Your task to perform on an android device: open app "Cash App" (install if not already installed) and go to login screen Image 0: 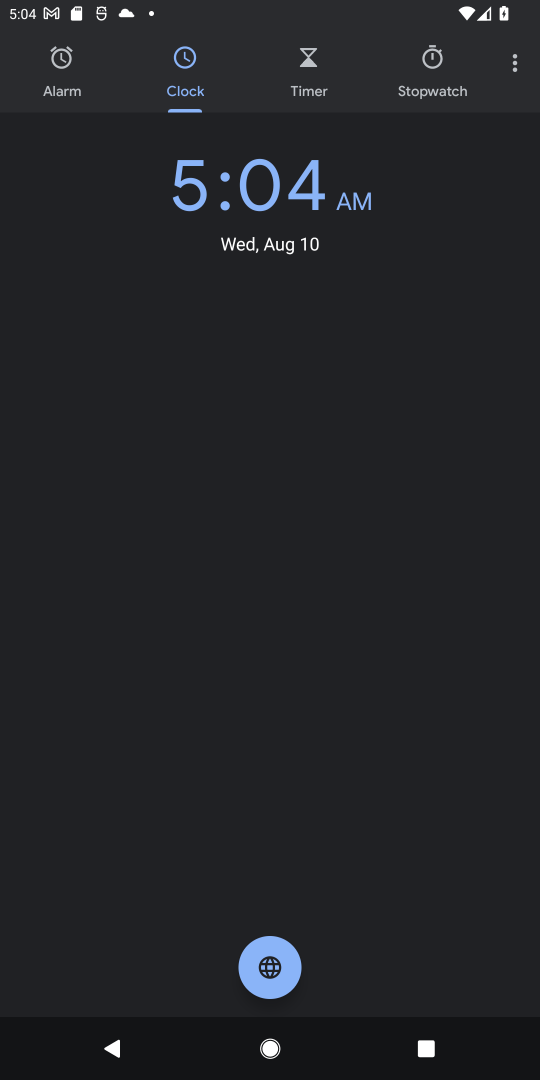
Step 0: press home button
Your task to perform on an android device: open app "Cash App" (install if not already installed) and go to login screen Image 1: 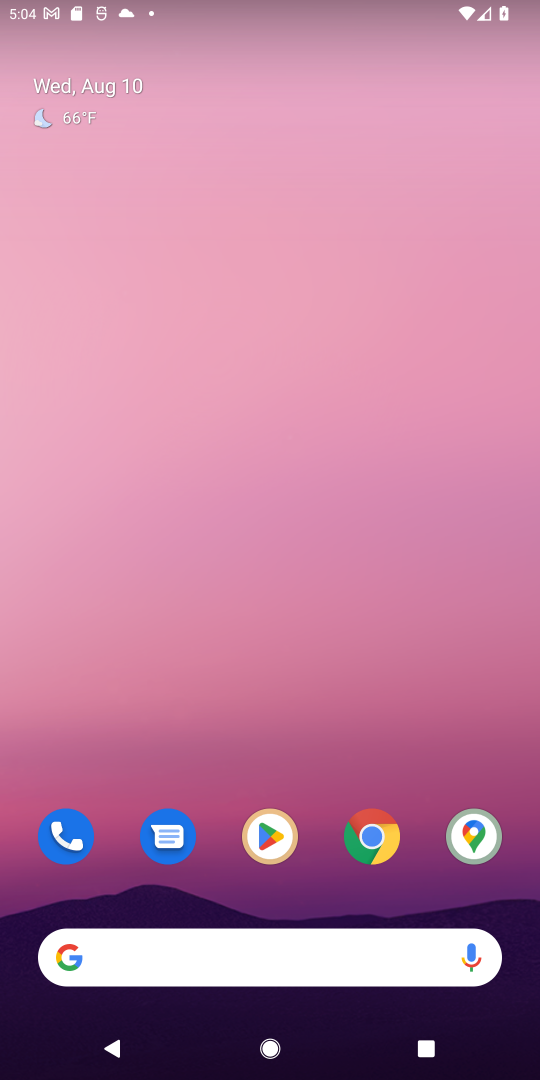
Step 1: drag from (244, 941) to (239, 358)
Your task to perform on an android device: open app "Cash App" (install if not already installed) and go to login screen Image 2: 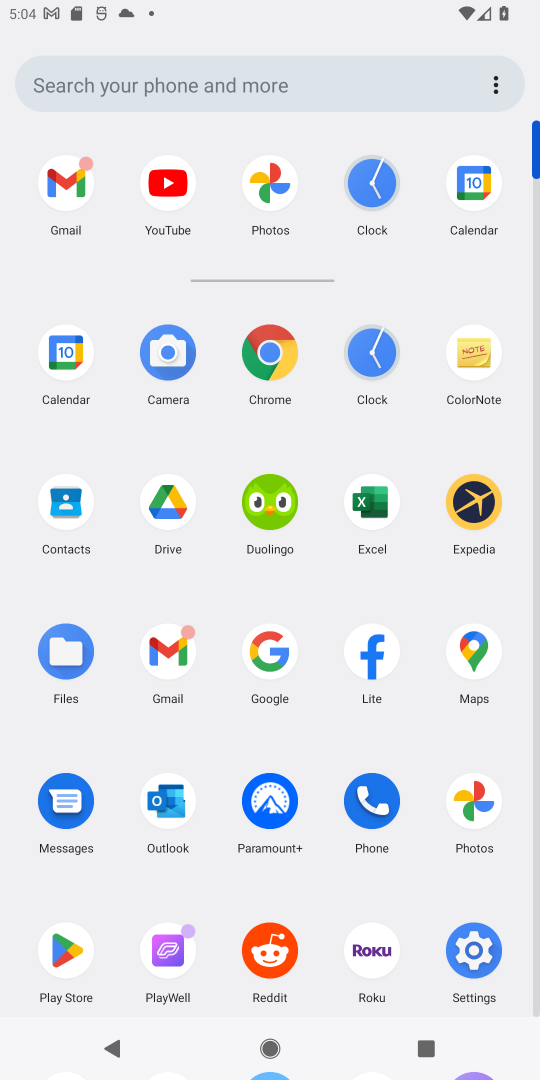
Step 2: click (70, 949)
Your task to perform on an android device: open app "Cash App" (install if not already installed) and go to login screen Image 3: 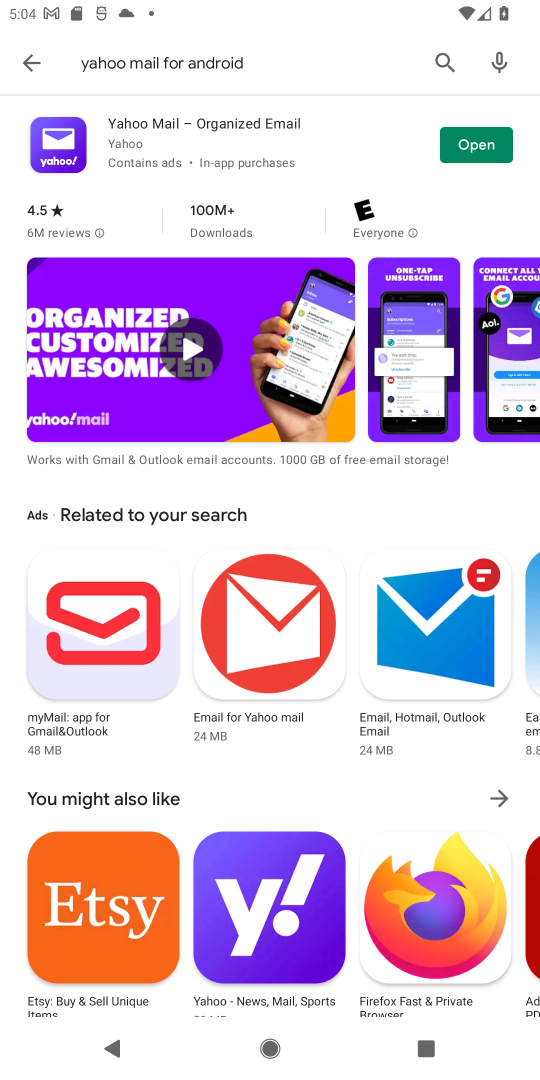
Step 3: click (34, 56)
Your task to perform on an android device: open app "Cash App" (install if not already installed) and go to login screen Image 4: 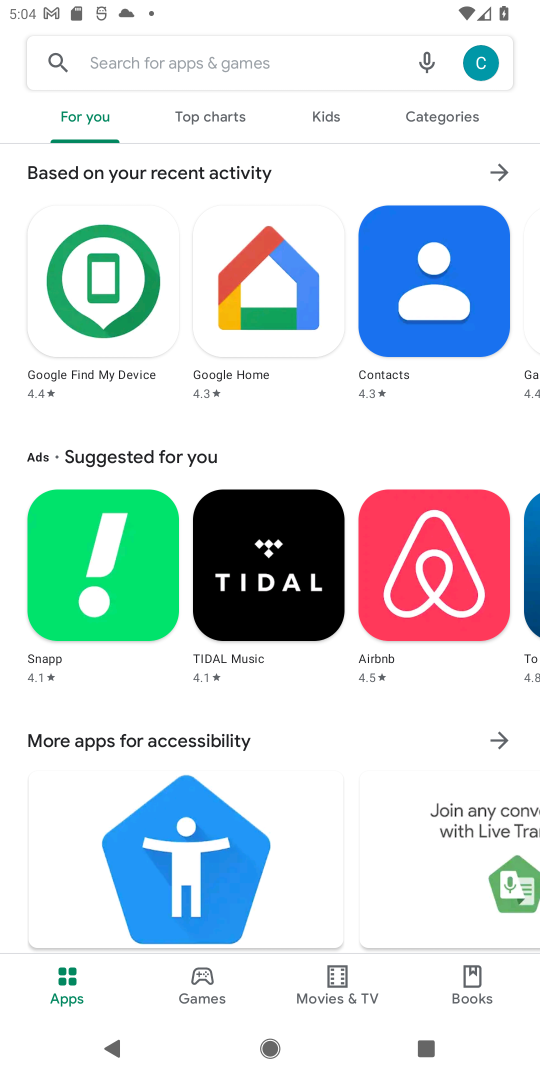
Step 4: click (124, 57)
Your task to perform on an android device: open app "Cash App" (install if not already installed) and go to login screen Image 5: 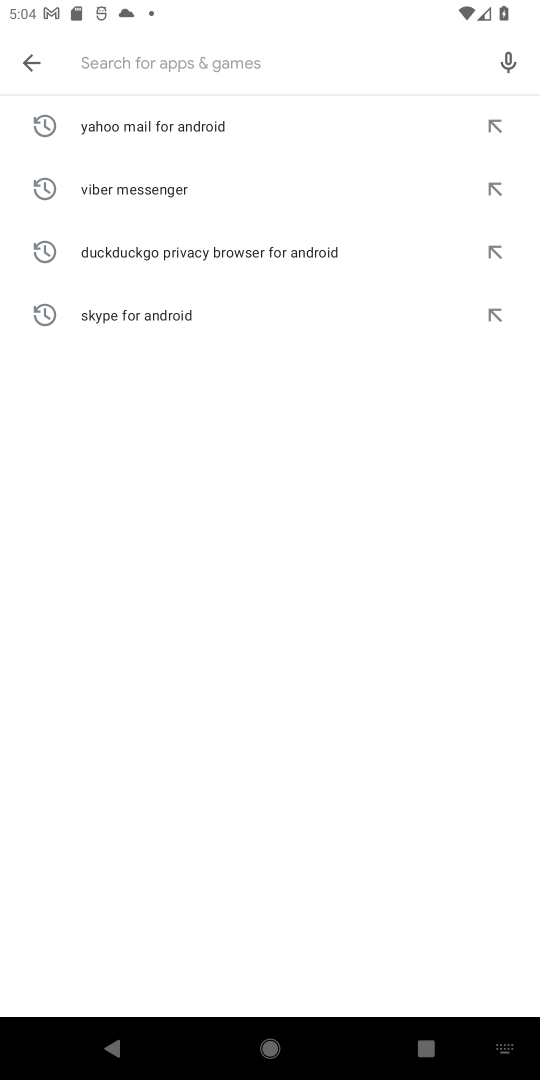
Step 5: type "cash app"
Your task to perform on an android device: open app "Cash App" (install if not already installed) and go to login screen Image 6: 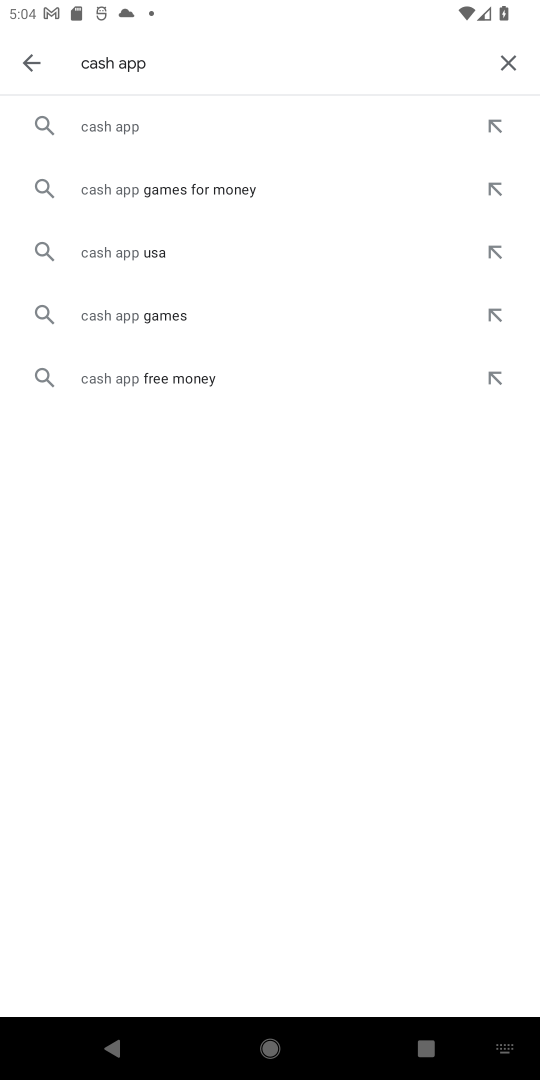
Step 6: click (101, 121)
Your task to perform on an android device: open app "Cash App" (install if not already installed) and go to login screen Image 7: 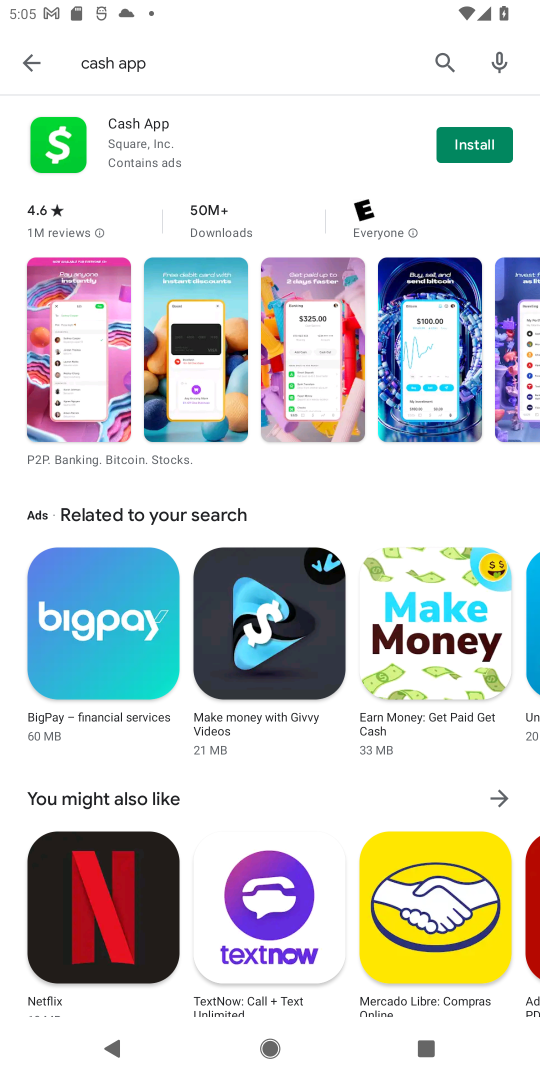
Step 7: click (465, 140)
Your task to perform on an android device: open app "Cash App" (install if not already installed) and go to login screen Image 8: 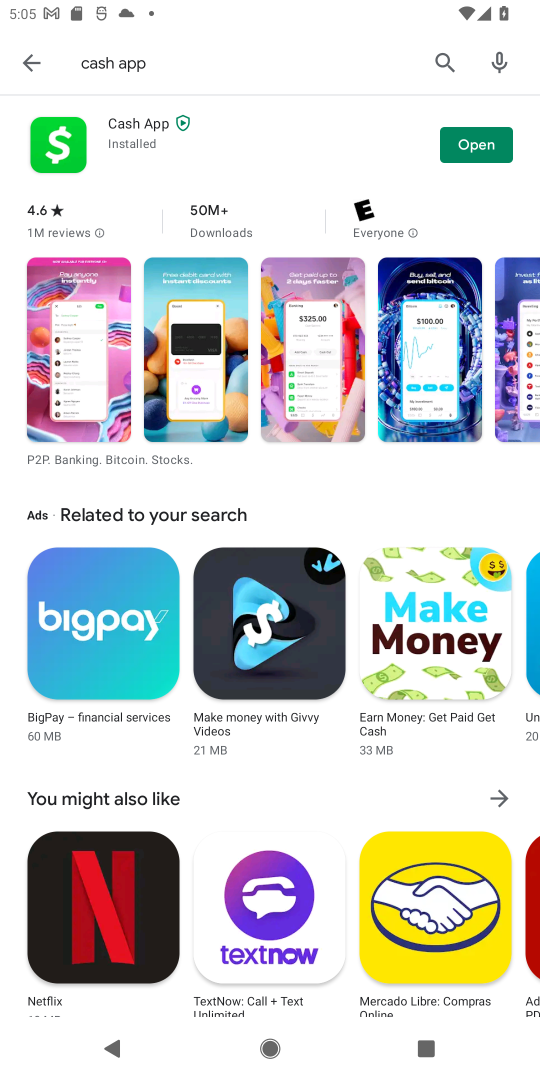
Step 8: click (474, 131)
Your task to perform on an android device: open app "Cash App" (install if not already installed) and go to login screen Image 9: 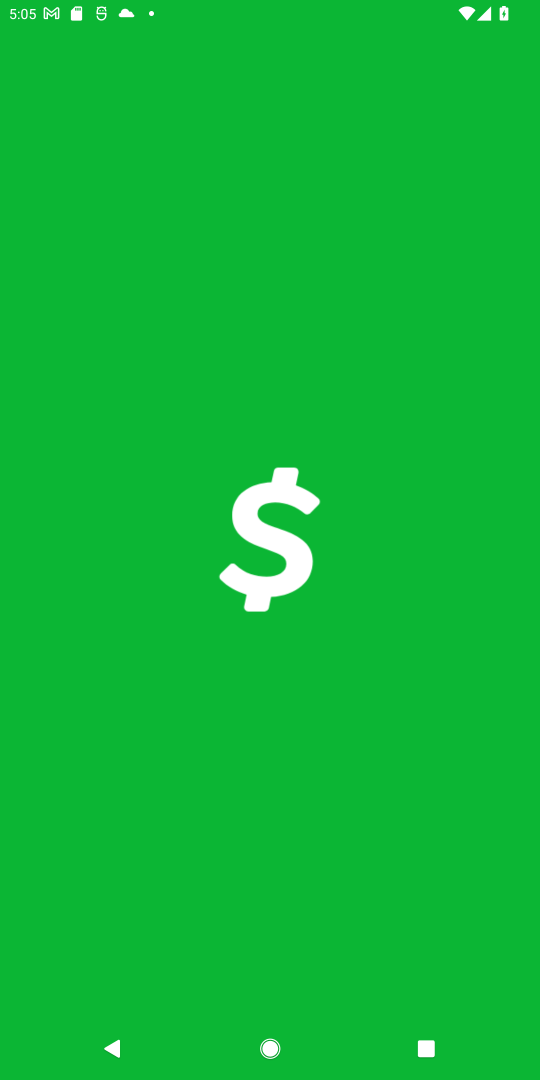
Step 9: task complete